Your task to perform on an android device: Search for lg ultragear on walmart, select the first entry, and add it to the cart. Image 0: 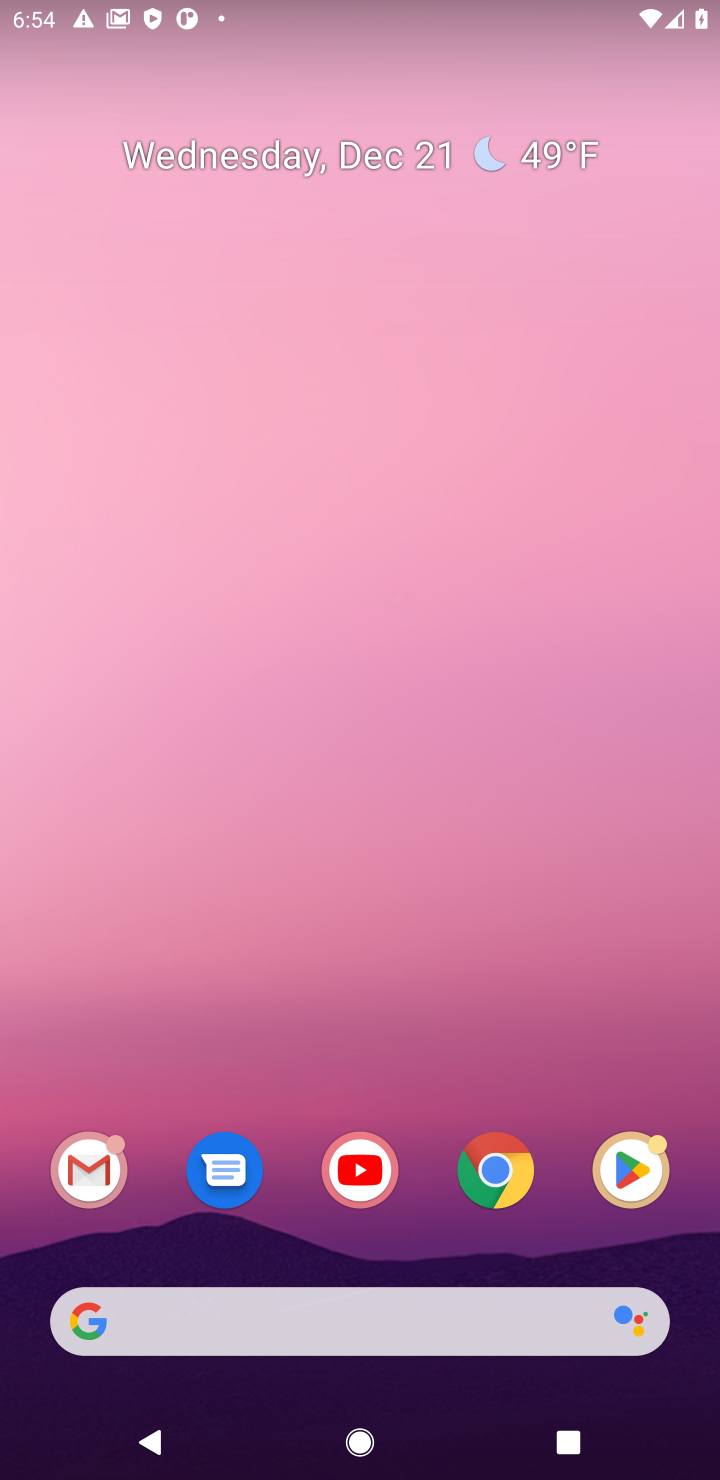
Step 0: click (500, 1165)
Your task to perform on an android device: Search for lg ultragear on walmart, select the first entry, and add it to the cart. Image 1: 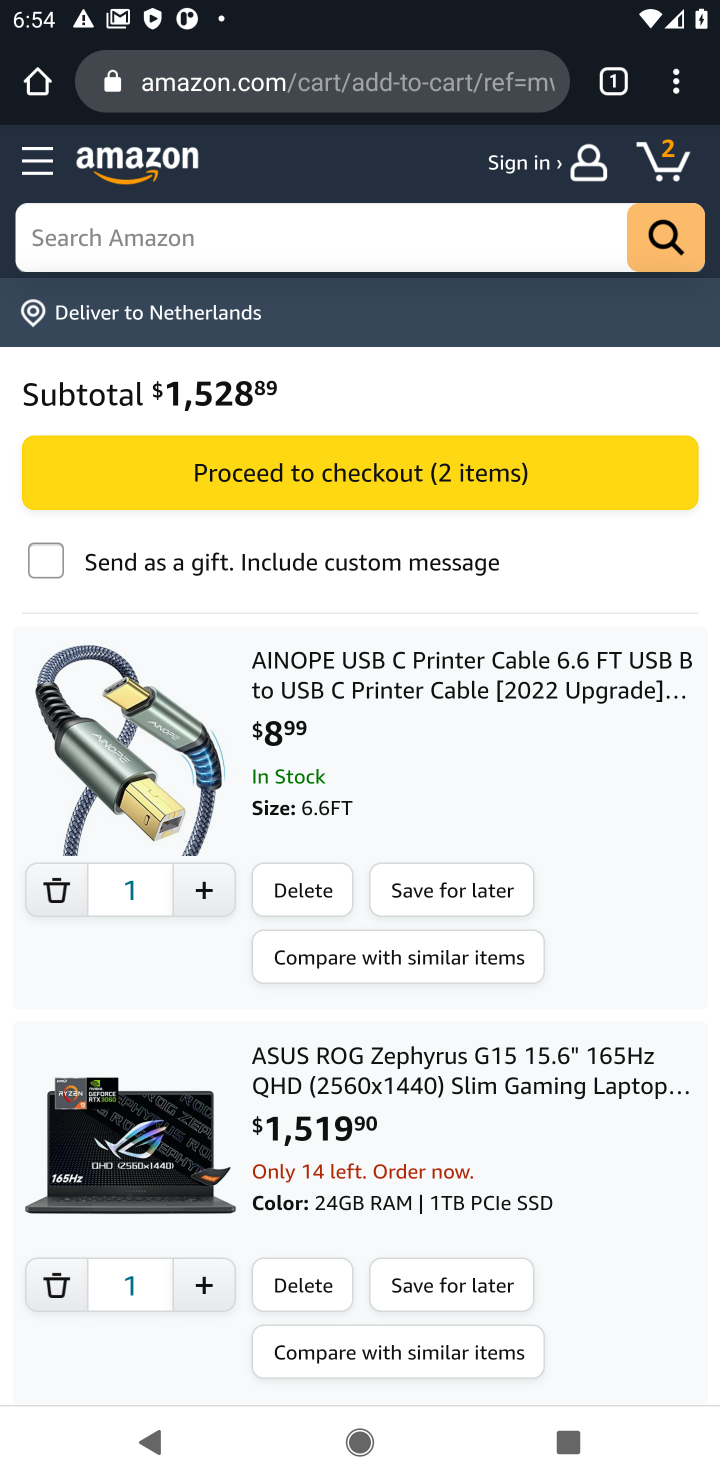
Step 1: click (292, 81)
Your task to perform on an android device: Search for lg ultragear on walmart, select the first entry, and add it to the cart. Image 2: 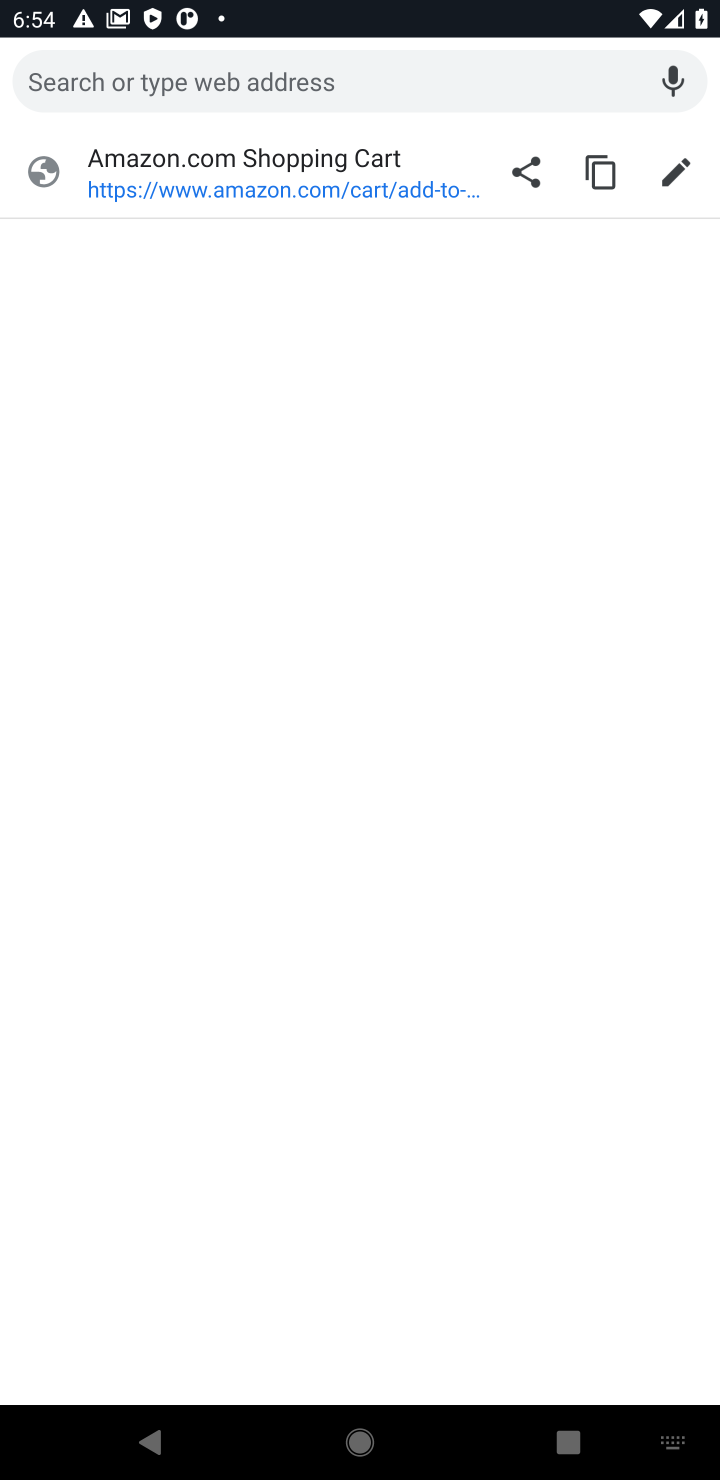
Step 2: type "walmart"
Your task to perform on an android device: Search for lg ultragear on walmart, select the first entry, and add it to the cart. Image 3: 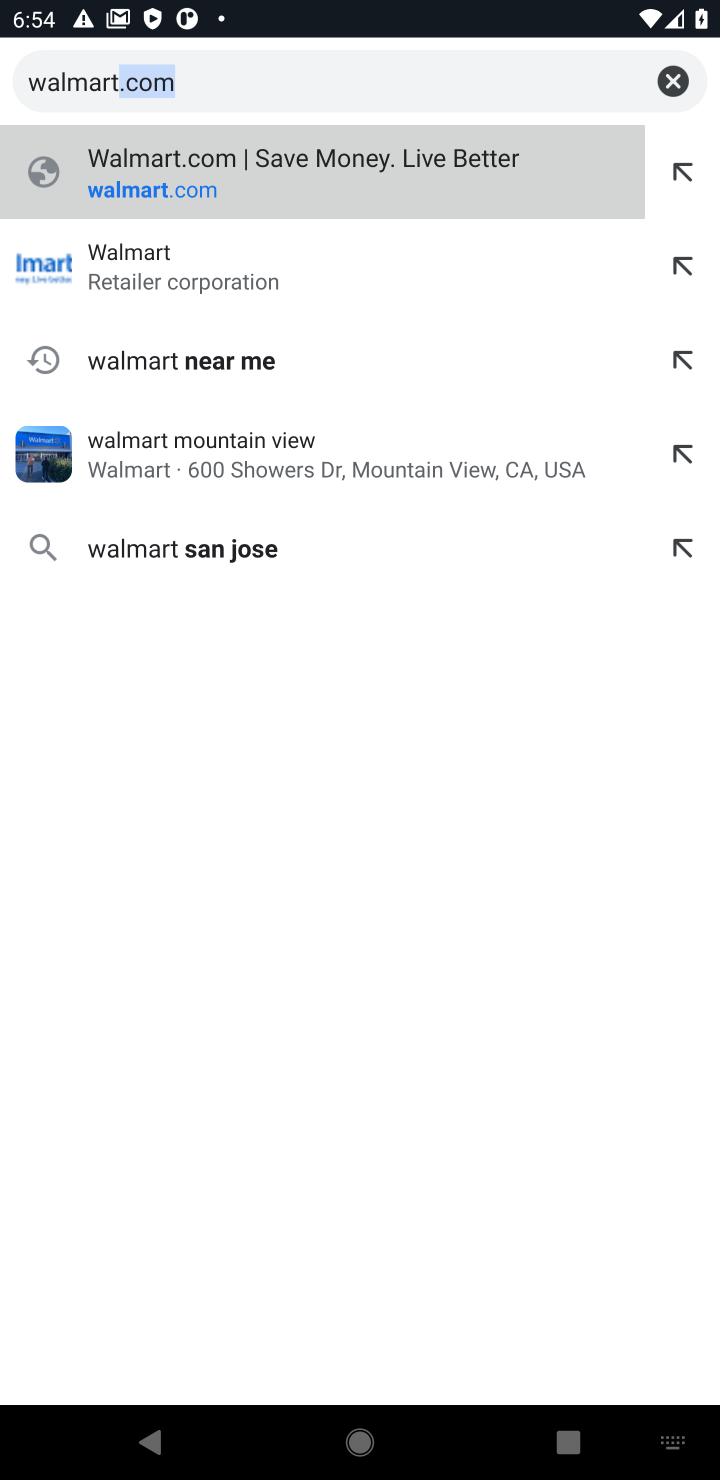
Step 3: click (201, 187)
Your task to perform on an android device: Search for lg ultragear on walmart, select the first entry, and add it to the cart. Image 4: 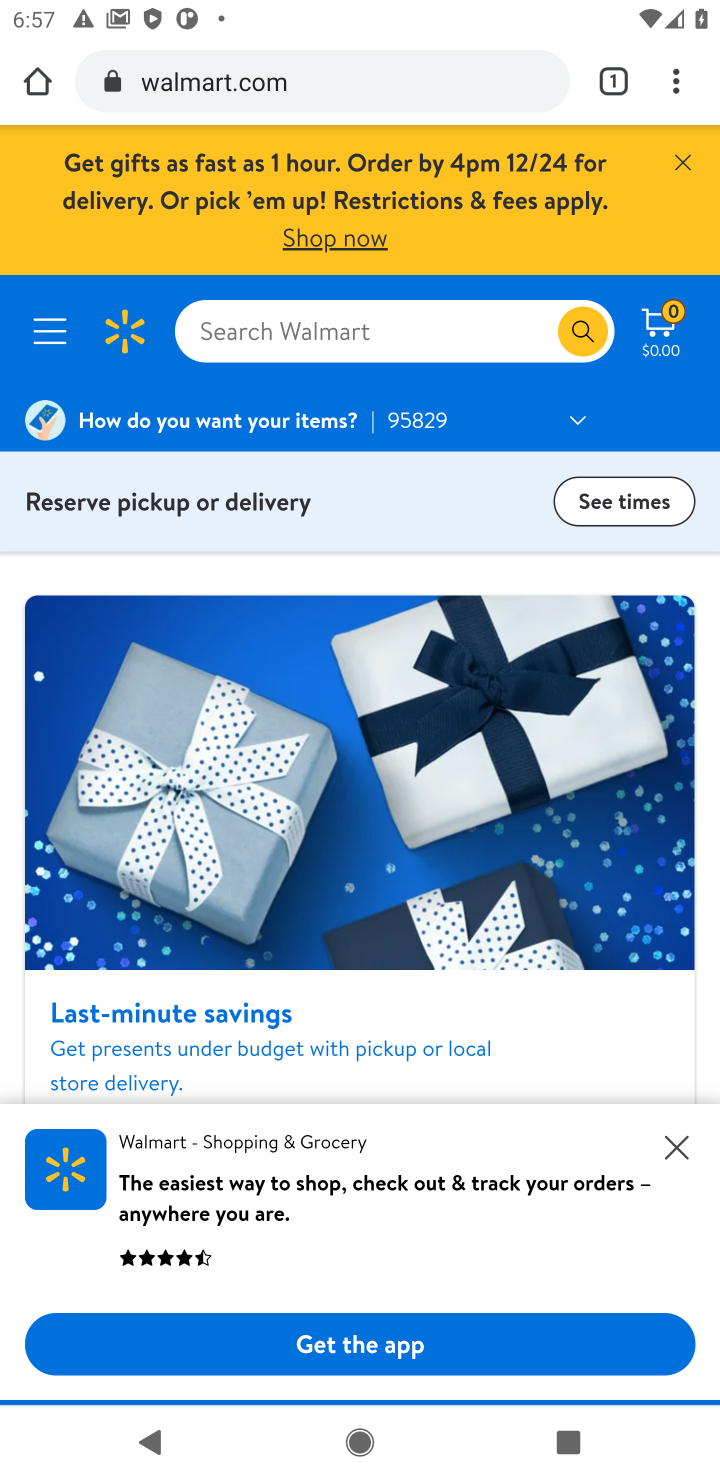
Step 4: click (367, 328)
Your task to perform on an android device: Search for lg ultragear on walmart, select the first entry, and add it to the cart. Image 5: 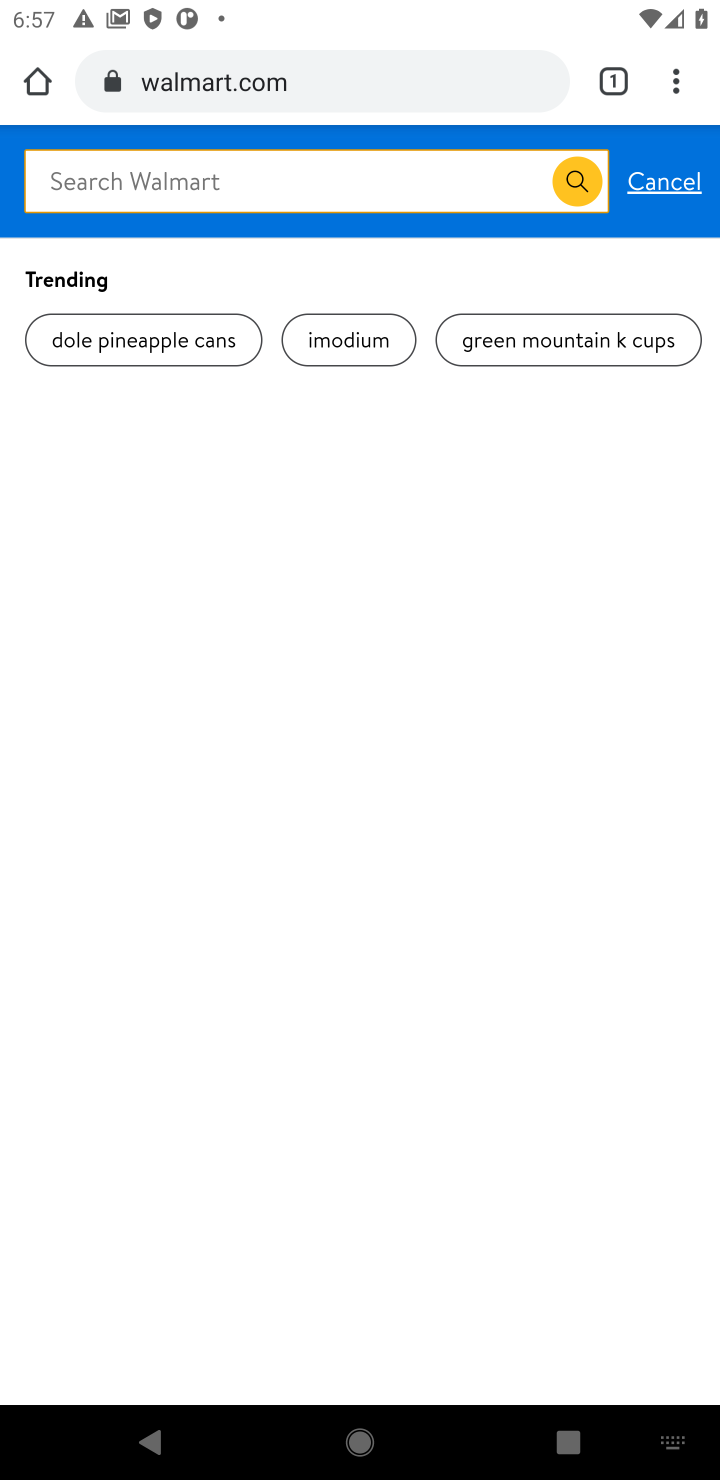
Step 5: type "lg ultragear"
Your task to perform on an android device: Search for lg ultragear on walmart, select the first entry, and add it to the cart. Image 6: 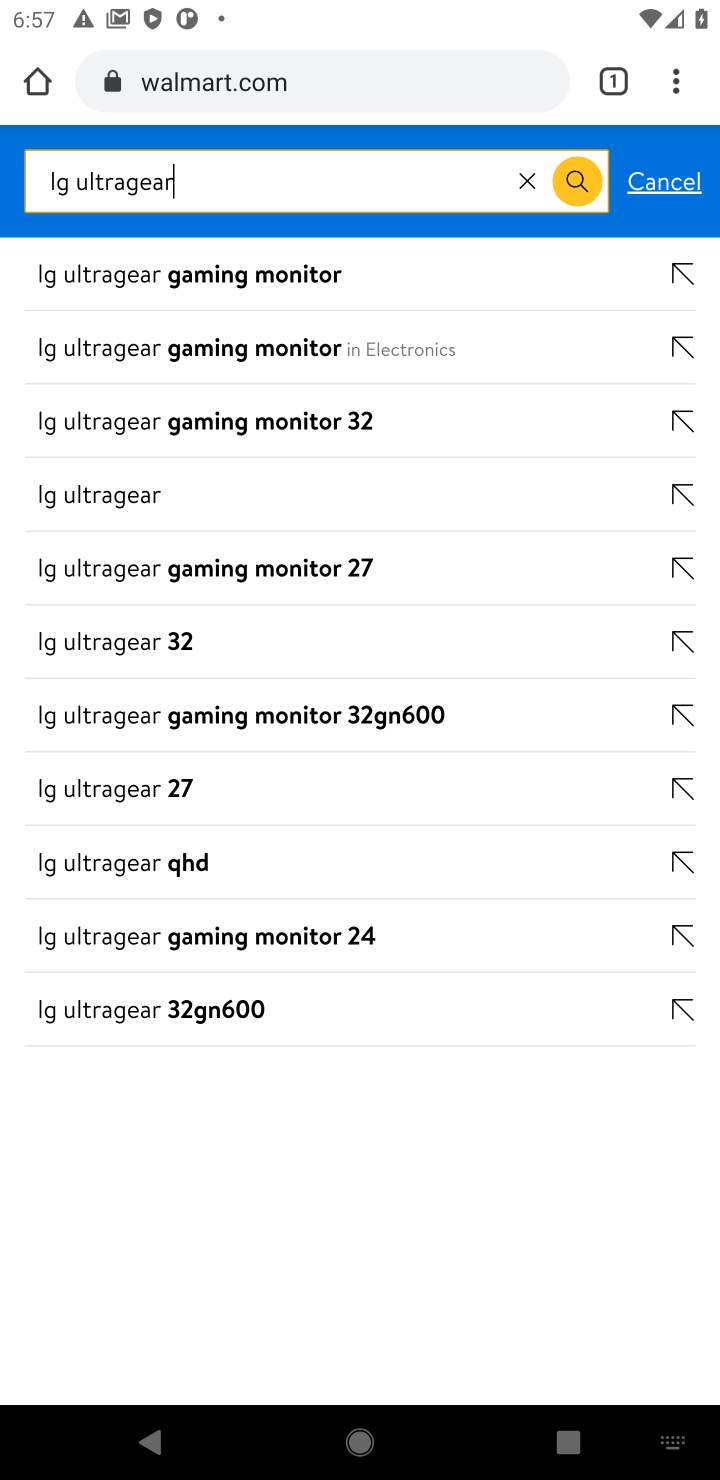
Step 6: click (239, 280)
Your task to perform on an android device: Search for lg ultragear on walmart, select the first entry, and add it to the cart. Image 7: 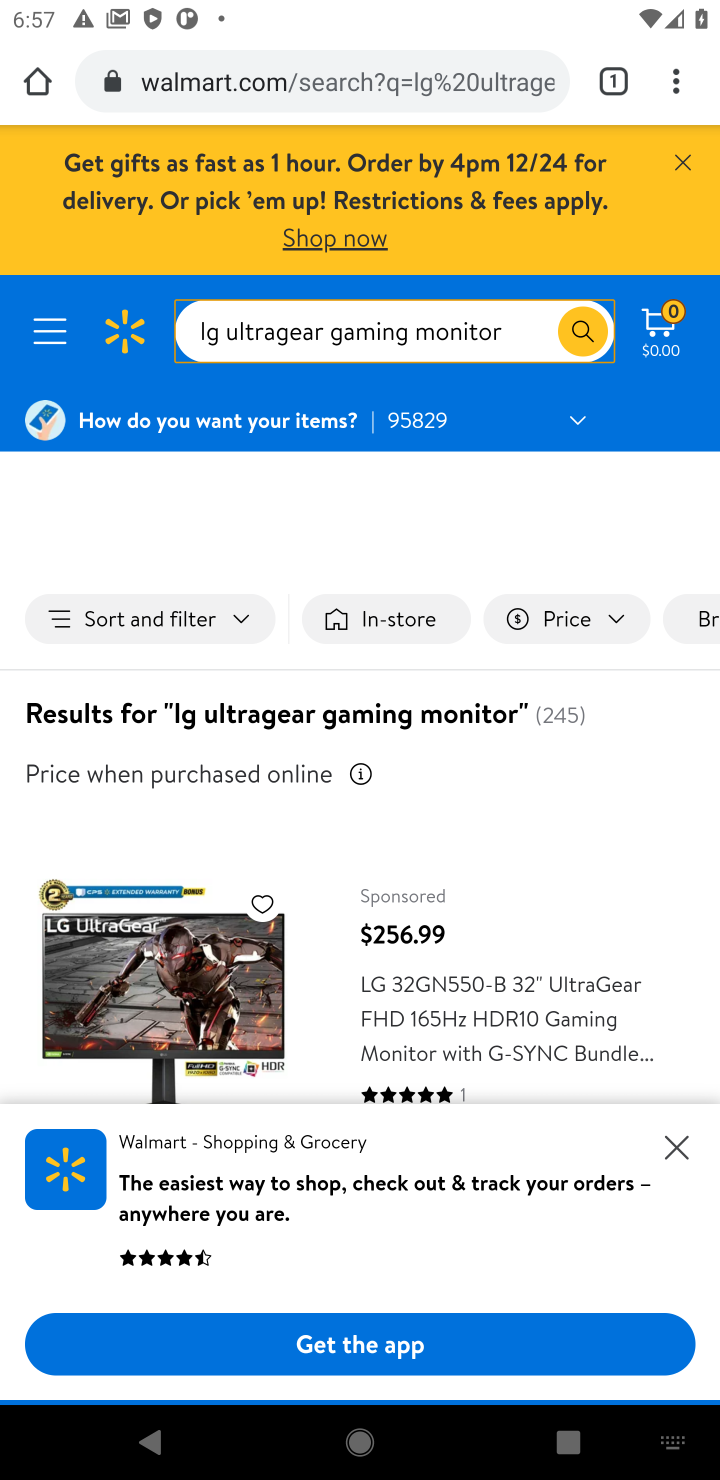
Step 7: click (479, 976)
Your task to perform on an android device: Search for lg ultragear on walmart, select the first entry, and add it to the cart. Image 8: 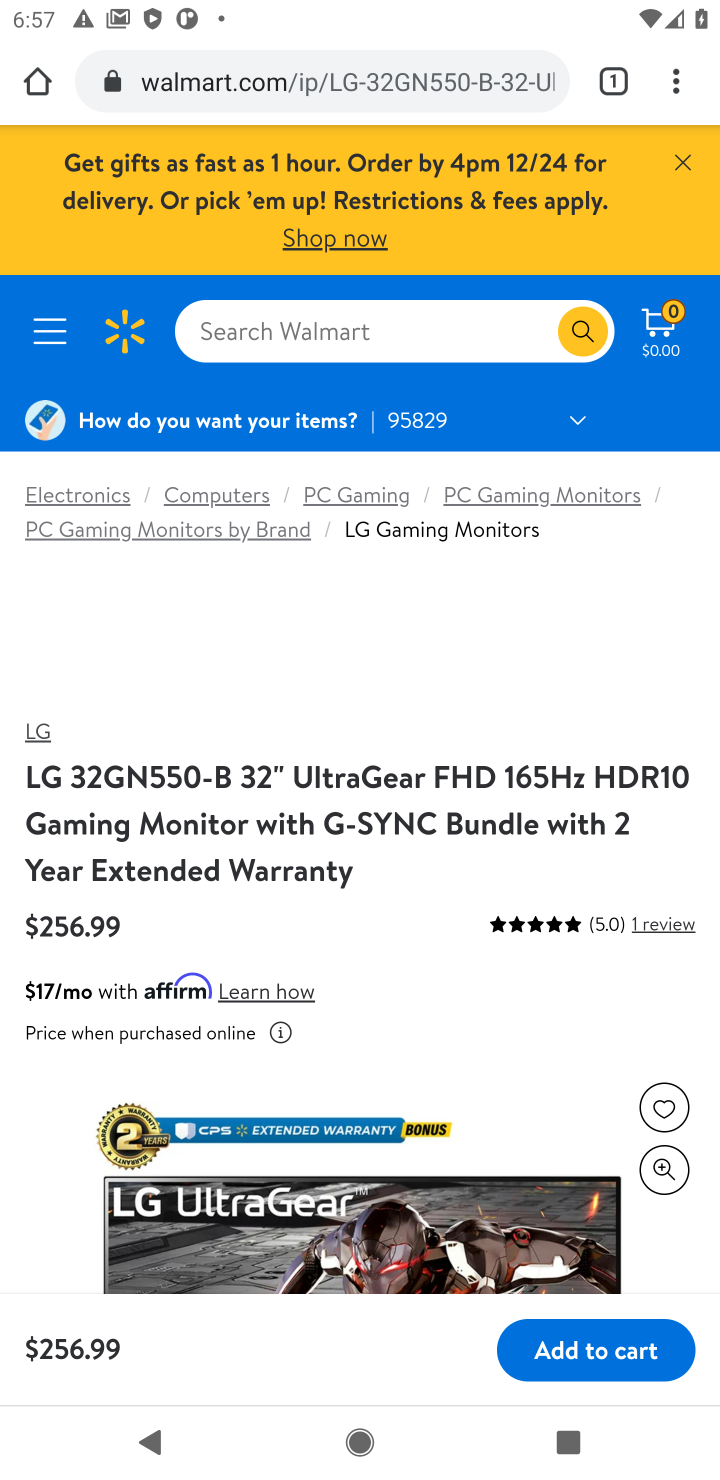
Step 8: click (597, 1342)
Your task to perform on an android device: Search for lg ultragear on walmart, select the first entry, and add it to the cart. Image 9: 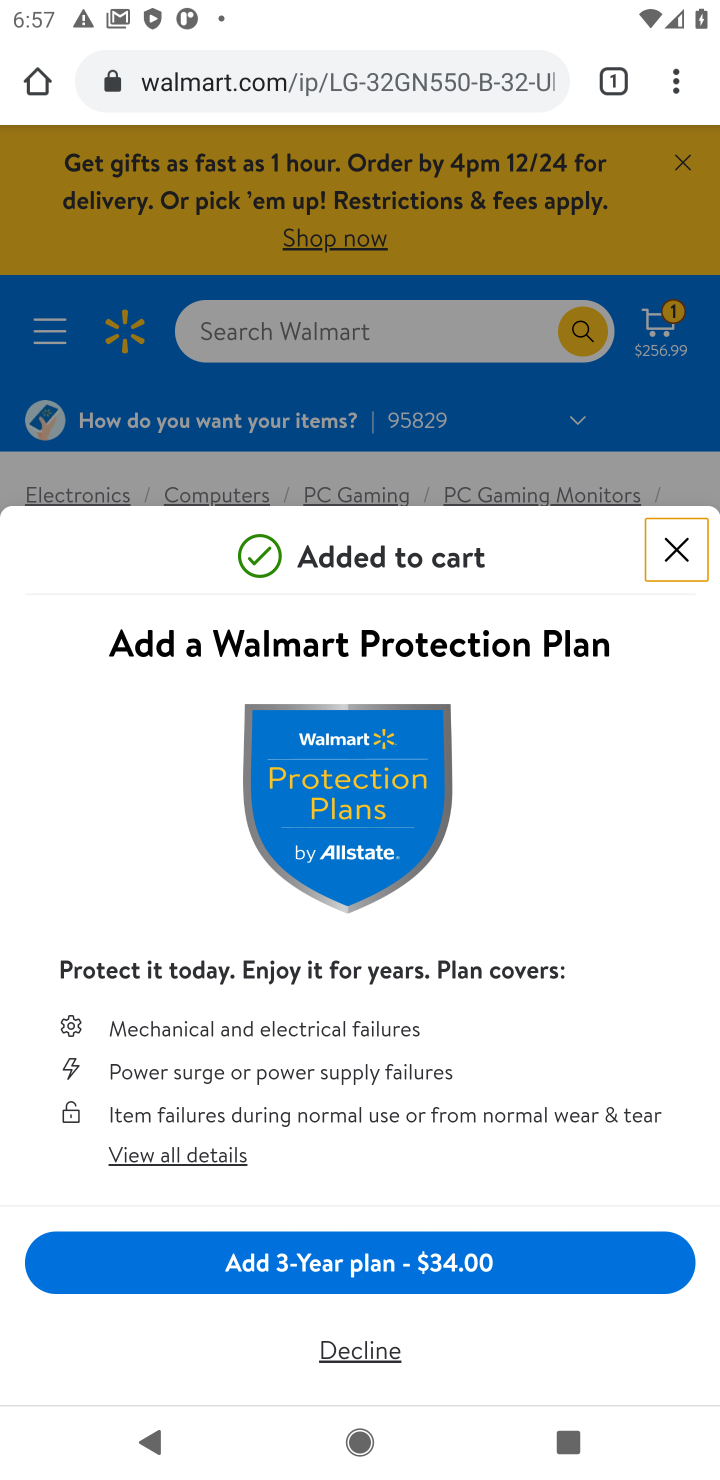
Step 9: task complete